Your task to perform on an android device: turn on sleep mode Image 0: 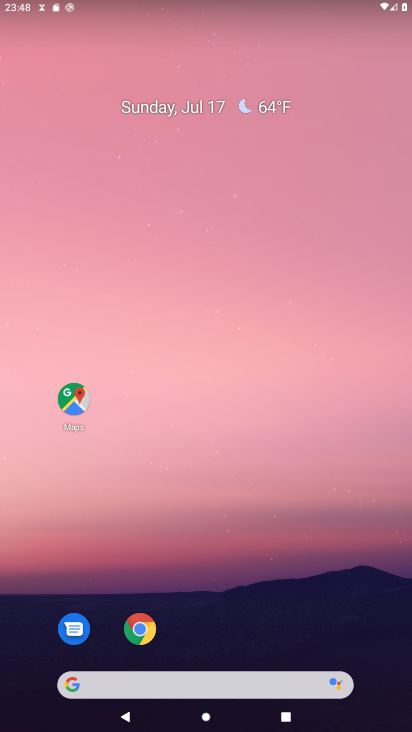
Step 0: drag from (295, 619) to (333, 249)
Your task to perform on an android device: turn on sleep mode Image 1: 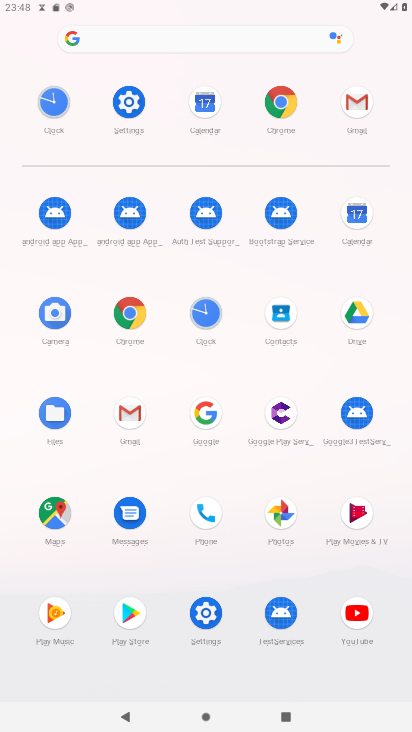
Step 1: click (118, 89)
Your task to perform on an android device: turn on sleep mode Image 2: 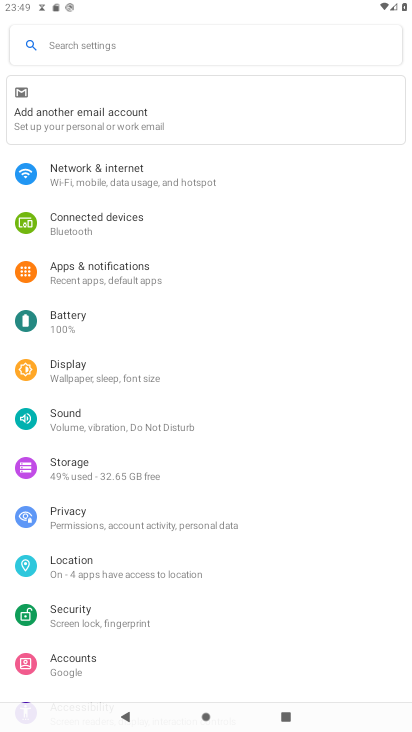
Step 2: task complete